Your task to perform on an android device: stop showing notifications on the lock screen Image 0: 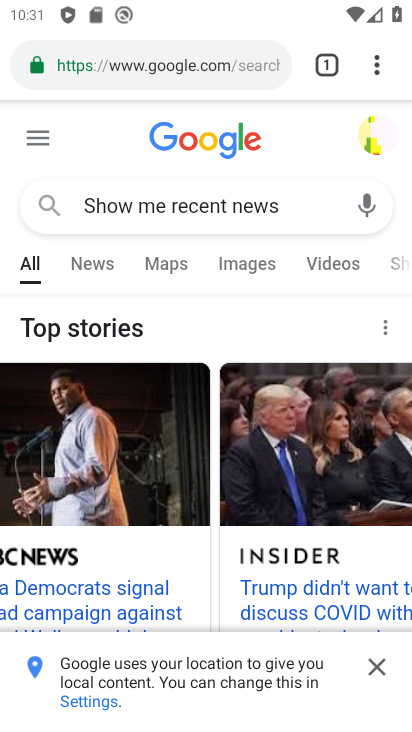
Step 0: press back button
Your task to perform on an android device: stop showing notifications on the lock screen Image 1: 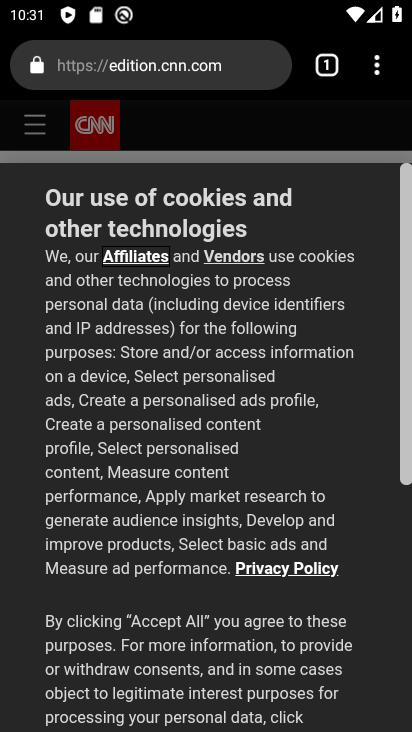
Step 1: press home button
Your task to perform on an android device: stop showing notifications on the lock screen Image 2: 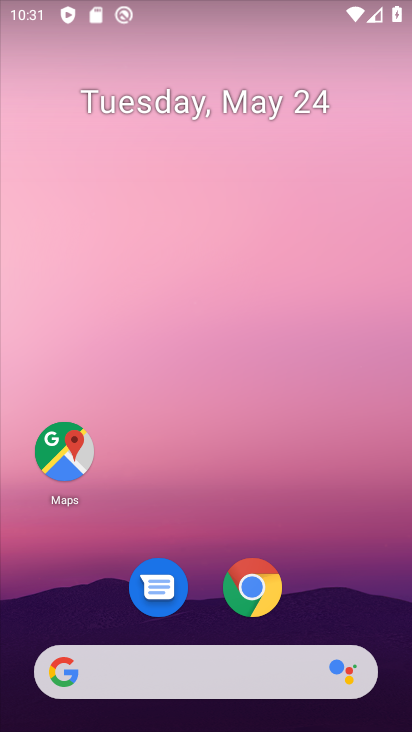
Step 2: drag from (326, 575) to (252, 12)
Your task to perform on an android device: stop showing notifications on the lock screen Image 3: 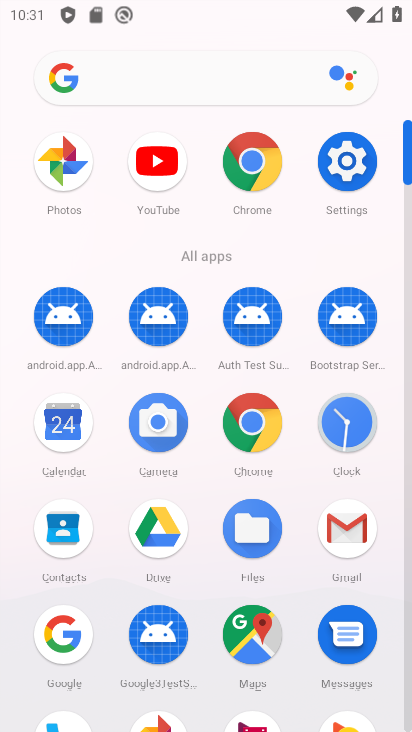
Step 3: drag from (8, 608) to (7, 260)
Your task to perform on an android device: stop showing notifications on the lock screen Image 4: 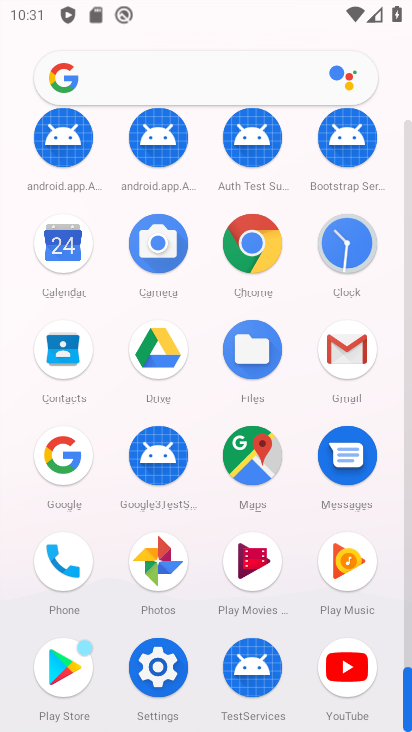
Step 4: click (156, 667)
Your task to perform on an android device: stop showing notifications on the lock screen Image 5: 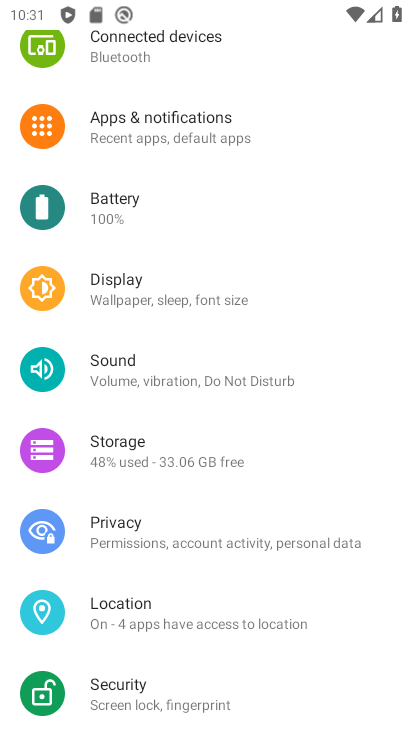
Step 5: drag from (242, 264) to (253, 591)
Your task to perform on an android device: stop showing notifications on the lock screen Image 6: 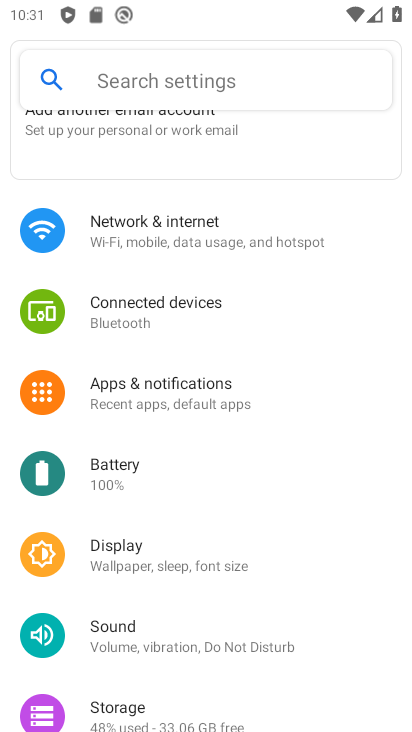
Step 6: click (209, 393)
Your task to perform on an android device: stop showing notifications on the lock screen Image 7: 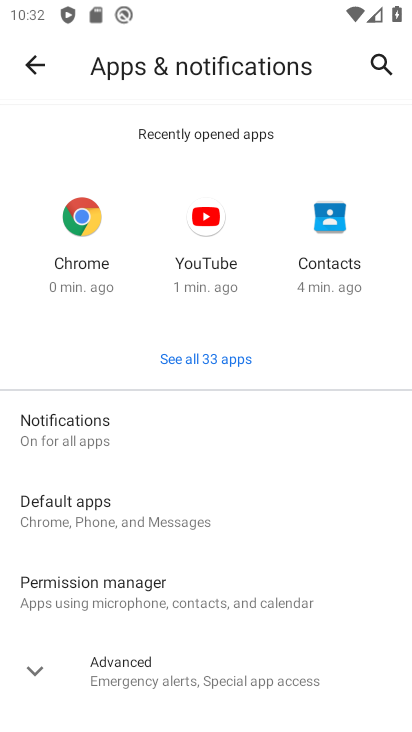
Step 7: drag from (262, 582) to (277, 248)
Your task to perform on an android device: stop showing notifications on the lock screen Image 8: 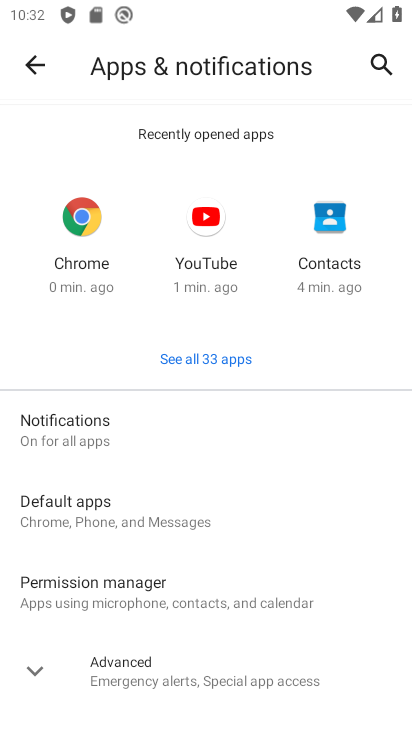
Step 8: click (49, 667)
Your task to perform on an android device: stop showing notifications on the lock screen Image 9: 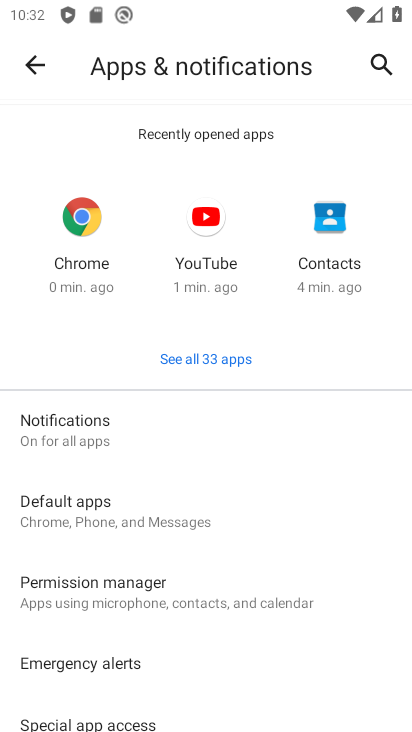
Step 9: click (169, 433)
Your task to perform on an android device: stop showing notifications on the lock screen Image 10: 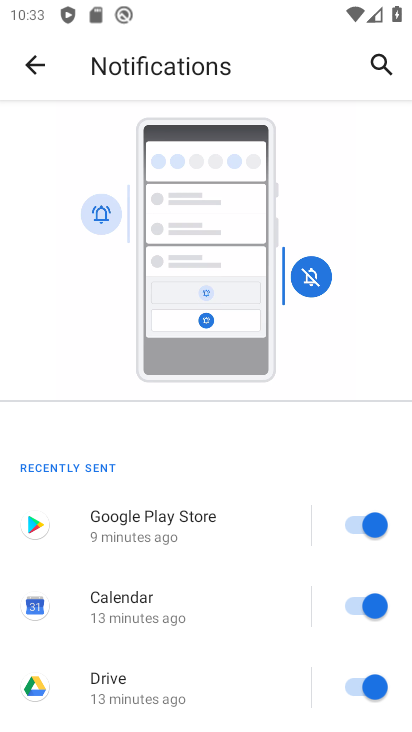
Step 10: drag from (231, 594) to (246, 119)
Your task to perform on an android device: stop showing notifications on the lock screen Image 11: 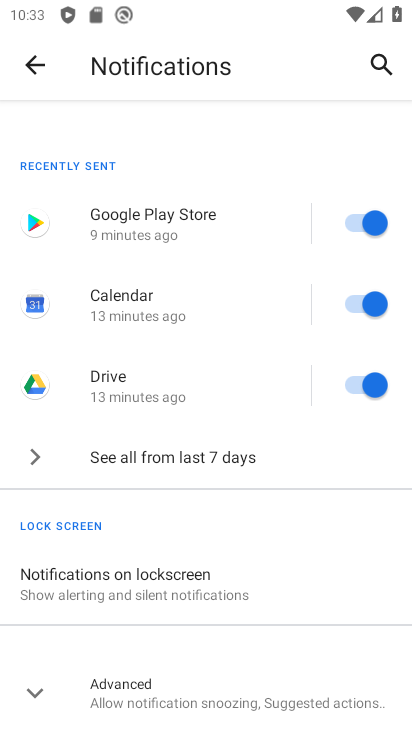
Step 11: click (172, 589)
Your task to perform on an android device: stop showing notifications on the lock screen Image 12: 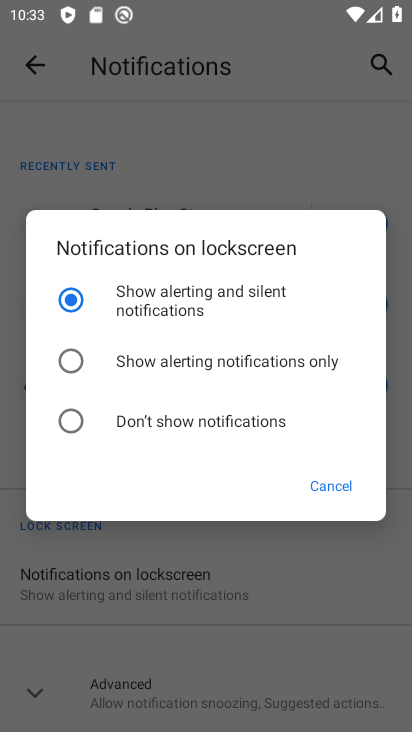
Step 12: click (169, 305)
Your task to perform on an android device: stop showing notifications on the lock screen Image 13: 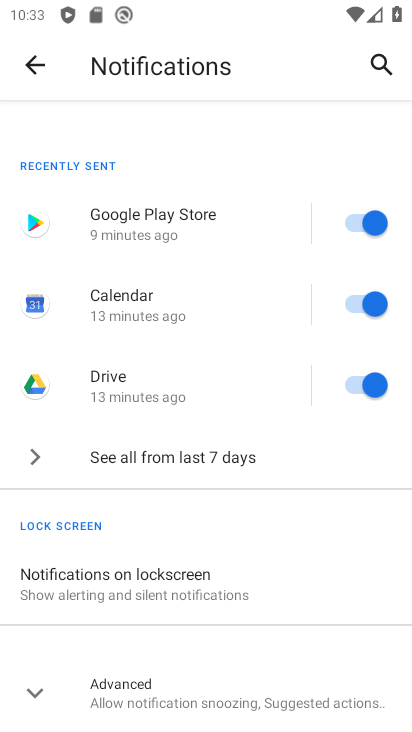
Step 13: task complete